Your task to perform on an android device: see tabs open on other devices in the chrome app Image 0: 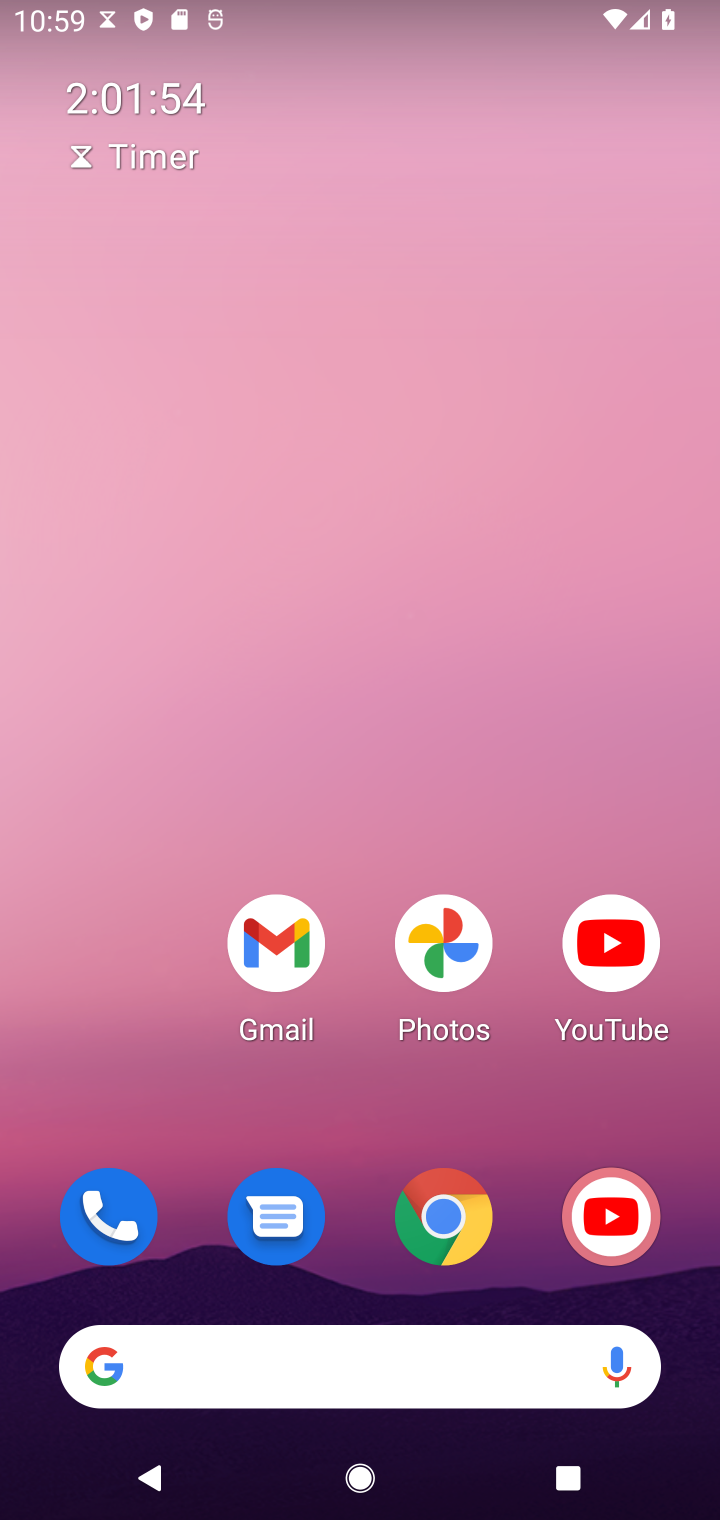
Step 0: click (437, 1237)
Your task to perform on an android device: see tabs open on other devices in the chrome app Image 1: 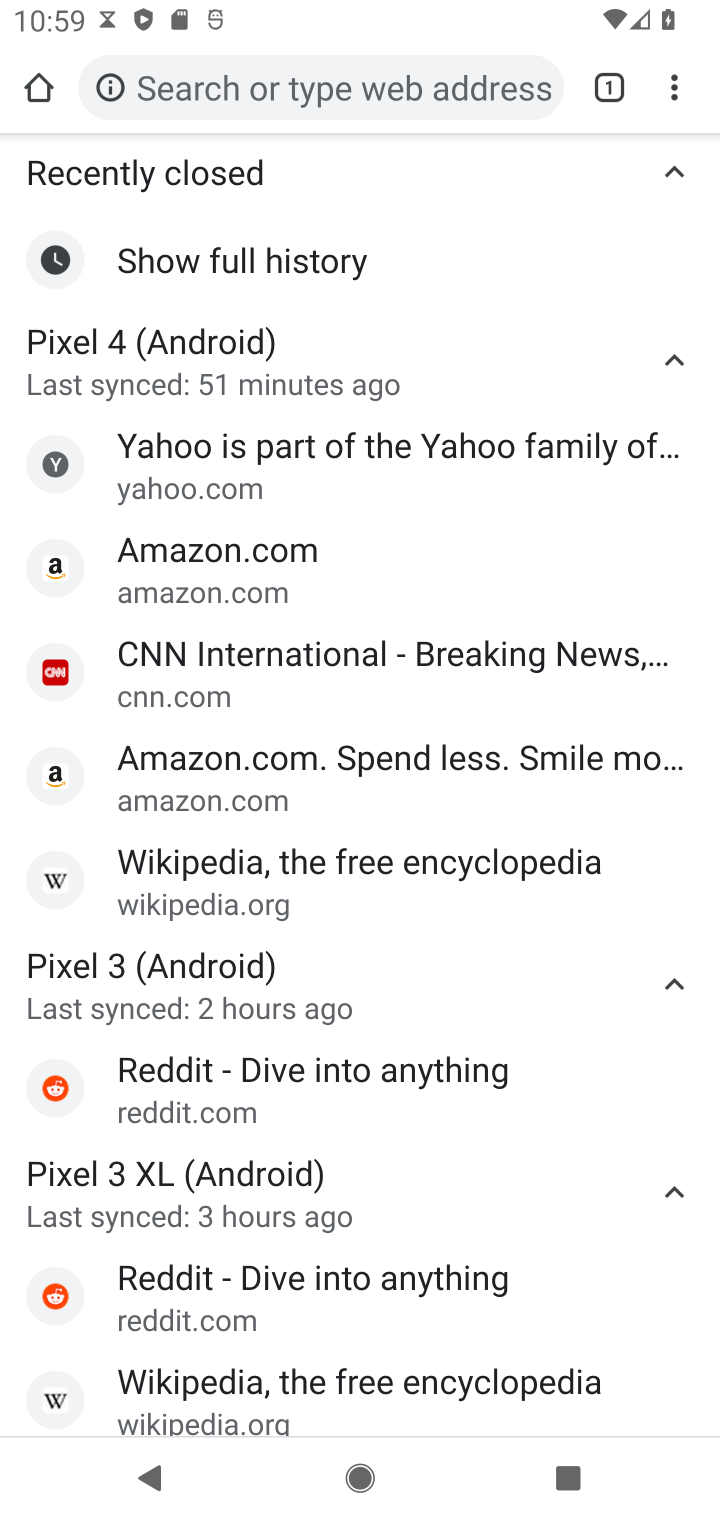
Step 1: task complete